Your task to perform on an android device: change text size in settings app Image 0: 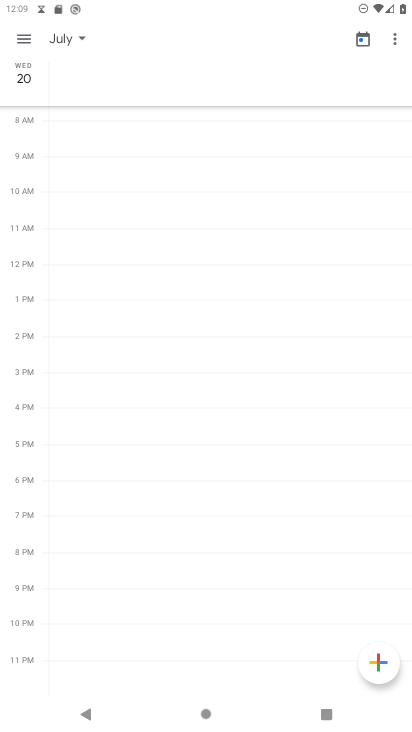
Step 0: press home button
Your task to perform on an android device: change text size in settings app Image 1: 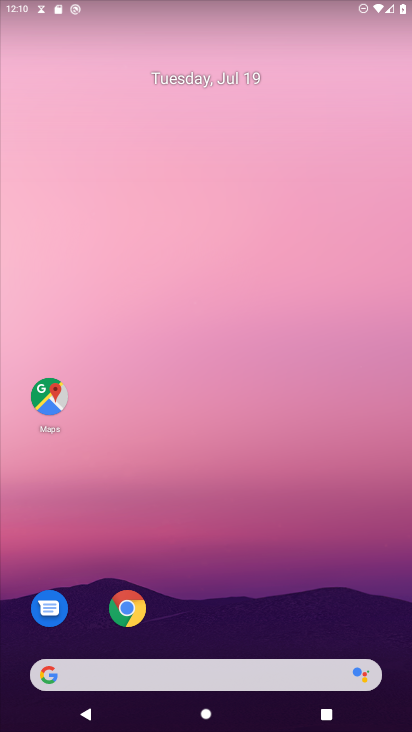
Step 1: drag from (217, 664) to (211, 2)
Your task to perform on an android device: change text size in settings app Image 2: 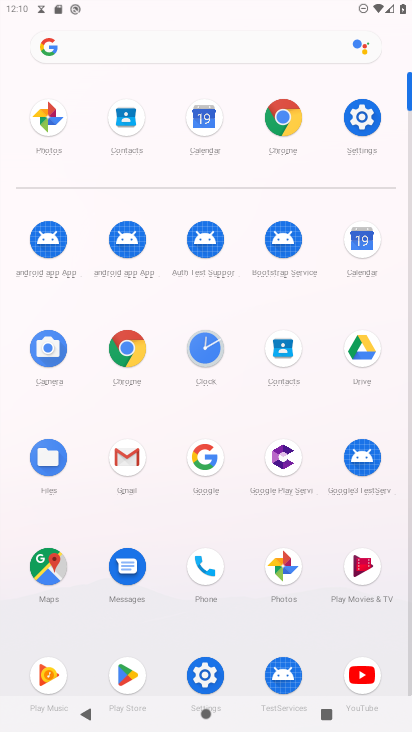
Step 2: click (357, 103)
Your task to perform on an android device: change text size in settings app Image 3: 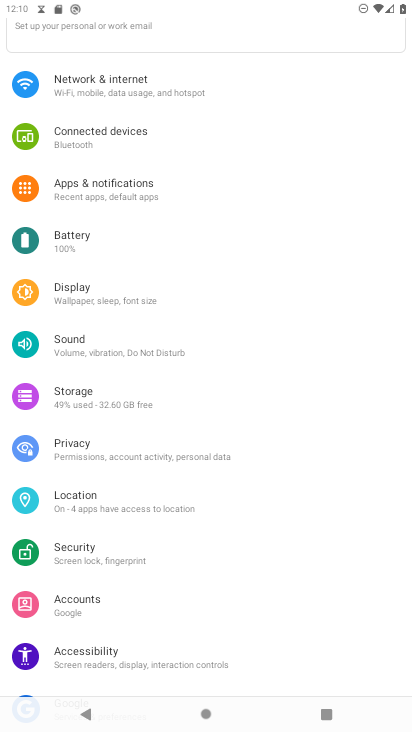
Step 3: drag from (123, 610) to (149, 225)
Your task to perform on an android device: change text size in settings app Image 4: 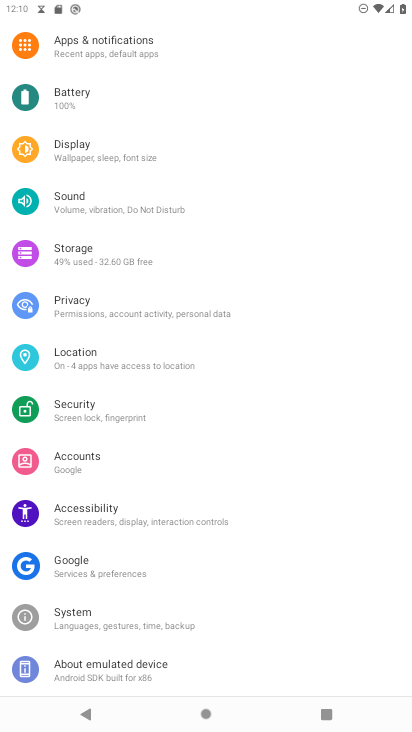
Step 4: click (192, 525)
Your task to perform on an android device: change text size in settings app Image 5: 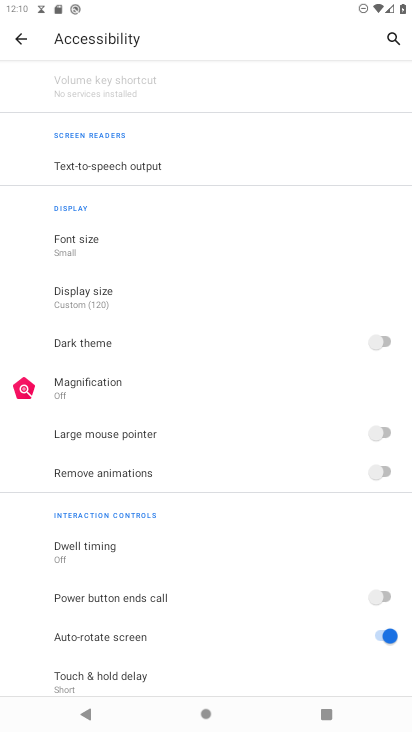
Step 5: click (78, 243)
Your task to perform on an android device: change text size in settings app Image 6: 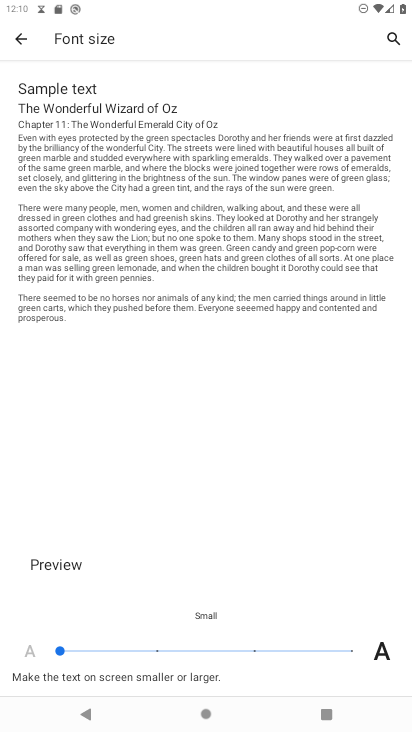
Step 6: click (251, 643)
Your task to perform on an android device: change text size in settings app Image 7: 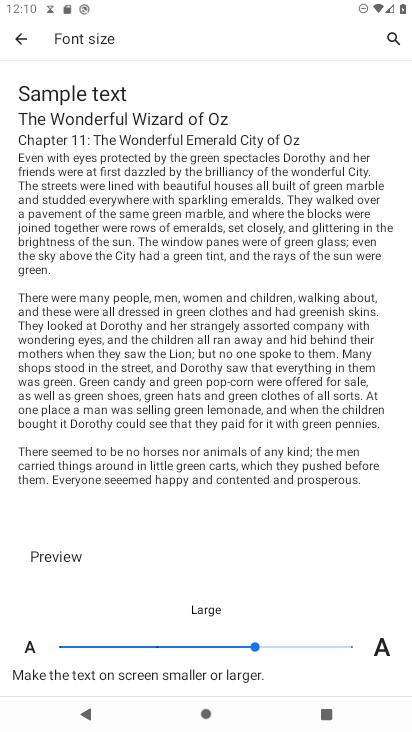
Step 7: task complete